Your task to perform on an android device: Go to battery settings Image 0: 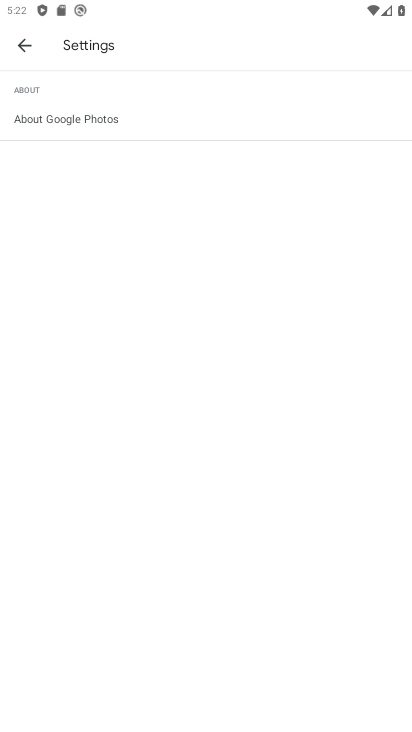
Step 0: press home button
Your task to perform on an android device: Go to battery settings Image 1: 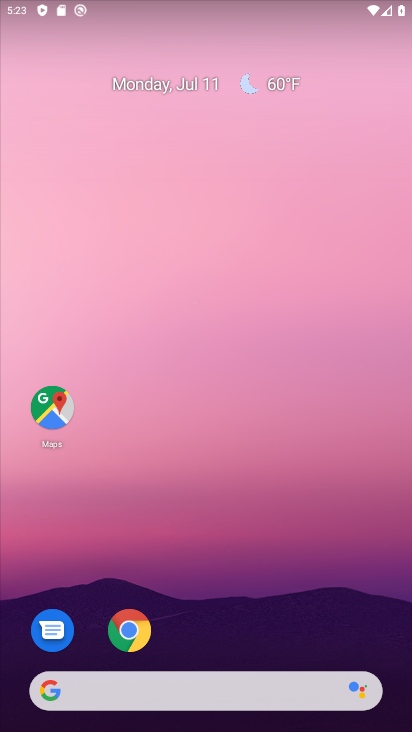
Step 1: drag from (133, 362) to (9, 207)
Your task to perform on an android device: Go to battery settings Image 2: 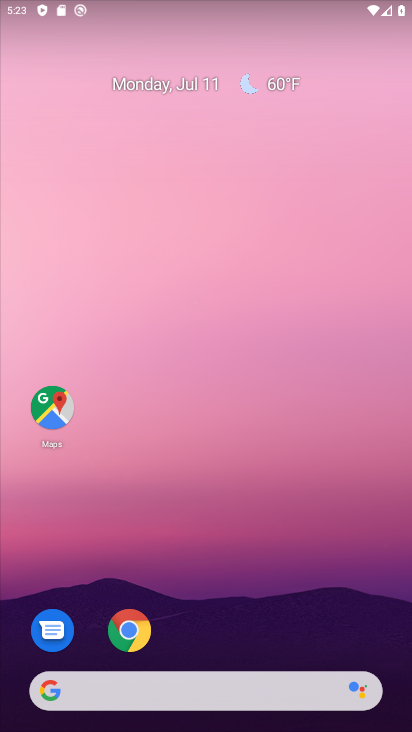
Step 2: drag from (143, 6) to (156, 47)
Your task to perform on an android device: Go to battery settings Image 3: 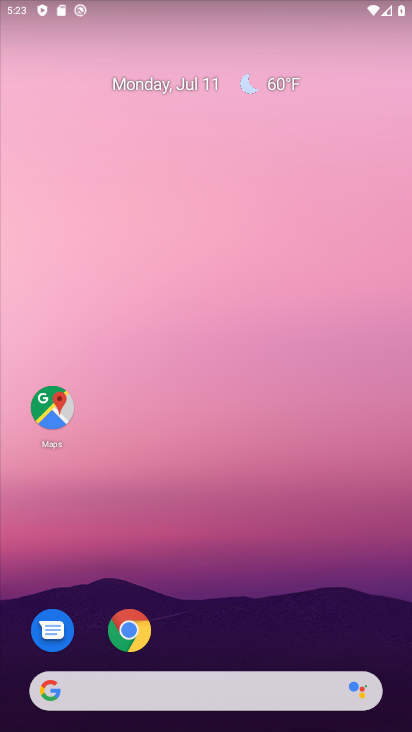
Step 3: drag from (205, 590) to (187, 320)
Your task to perform on an android device: Go to battery settings Image 4: 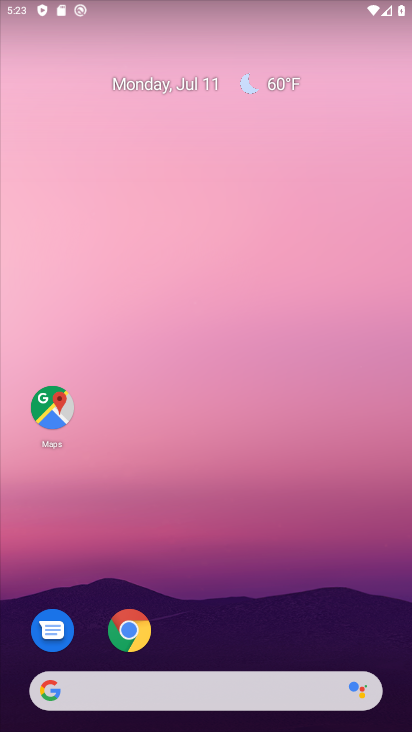
Step 4: drag from (166, 469) to (153, 20)
Your task to perform on an android device: Go to battery settings Image 5: 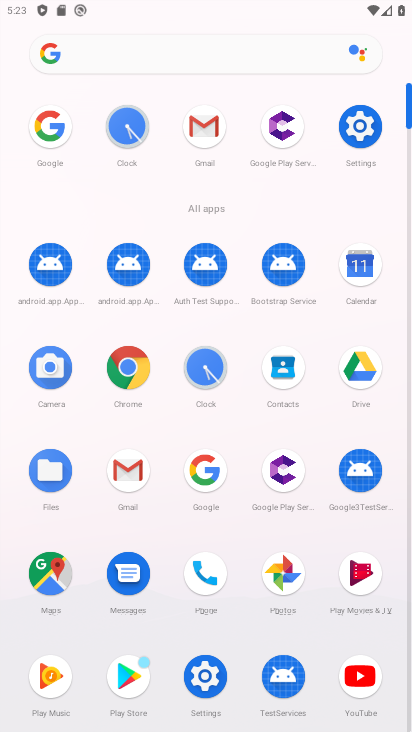
Step 5: click (352, 141)
Your task to perform on an android device: Go to battery settings Image 6: 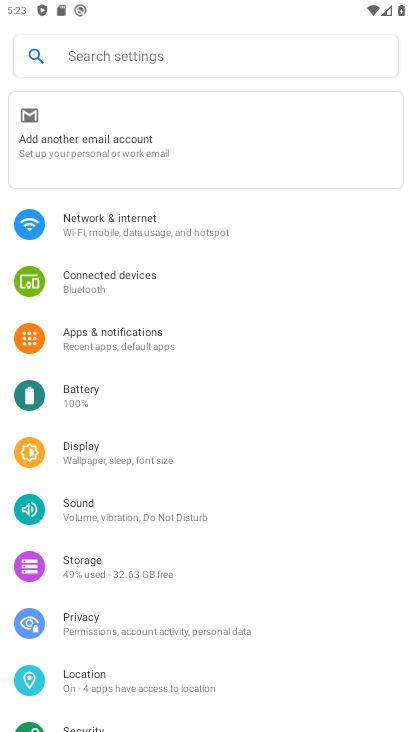
Step 6: click (57, 399)
Your task to perform on an android device: Go to battery settings Image 7: 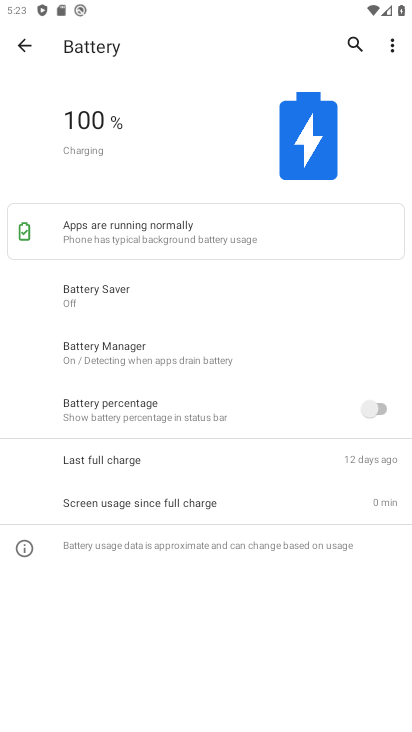
Step 7: task complete